Your task to perform on an android device: manage bookmarks in the chrome app Image 0: 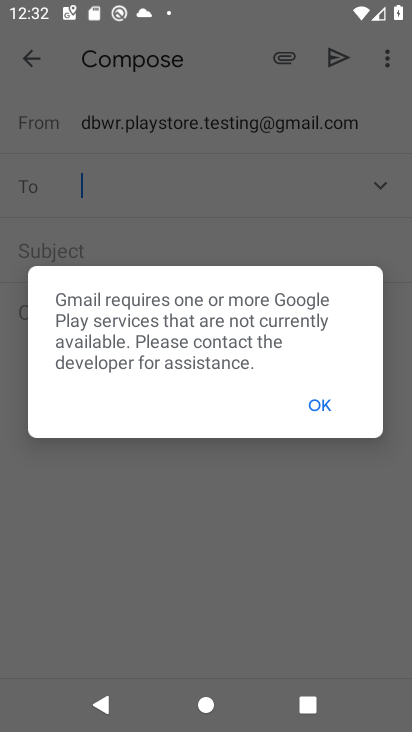
Step 0: press home button
Your task to perform on an android device: manage bookmarks in the chrome app Image 1: 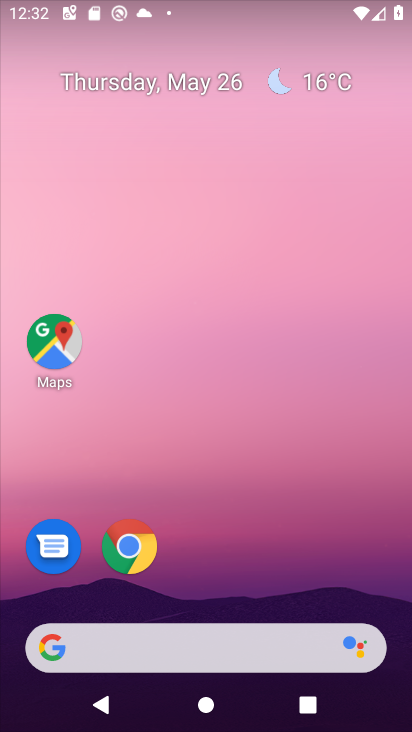
Step 1: click (129, 548)
Your task to perform on an android device: manage bookmarks in the chrome app Image 2: 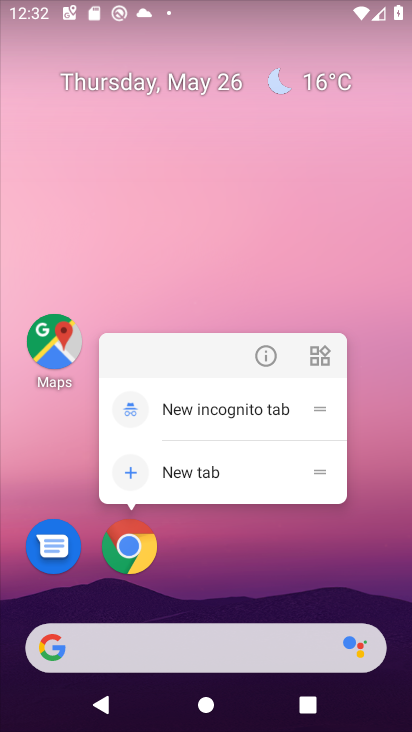
Step 2: click (129, 545)
Your task to perform on an android device: manage bookmarks in the chrome app Image 3: 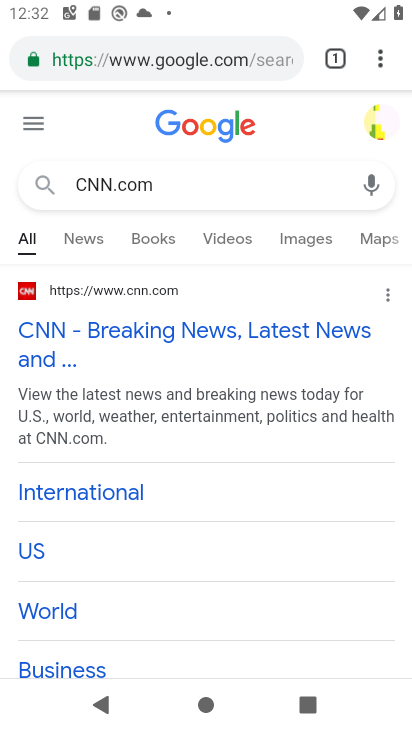
Step 3: click (380, 57)
Your task to perform on an android device: manage bookmarks in the chrome app Image 4: 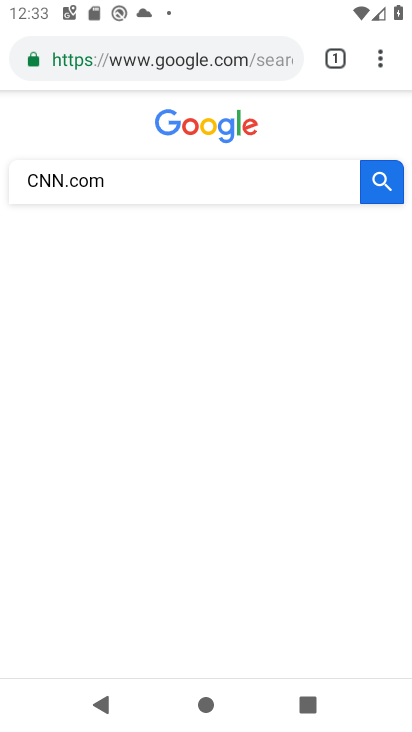
Step 4: click (380, 55)
Your task to perform on an android device: manage bookmarks in the chrome app Image 5: 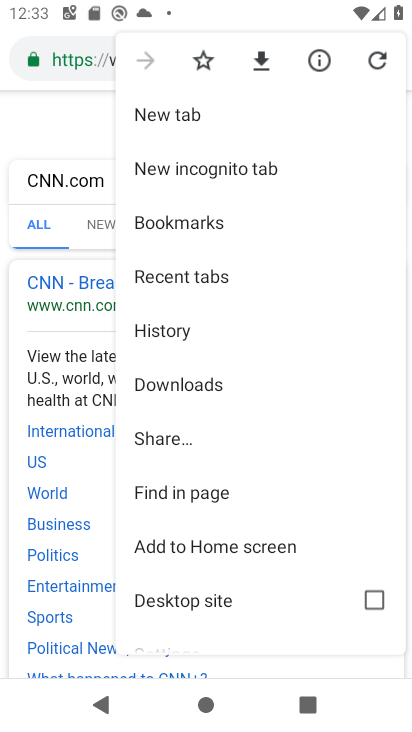
Step 5: drag from (216, 569) to (265, 213)
Your task to perform on an android device: manage bookmarks in the chrome app Image 6: 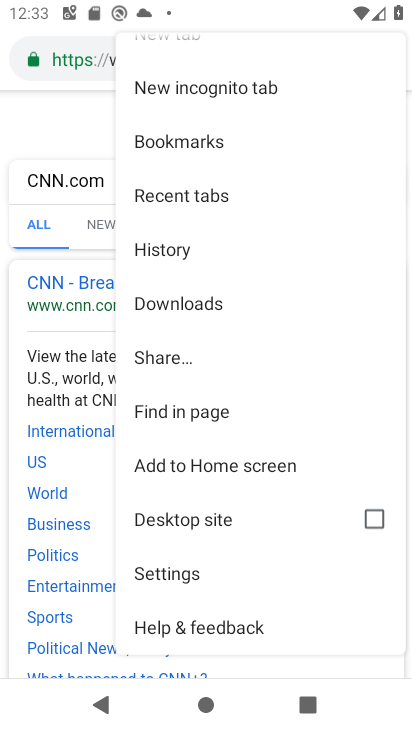
Step 6: click (196, 146)
Your task to perform on an android device: manage bookmarks in the chrome app Image 7: 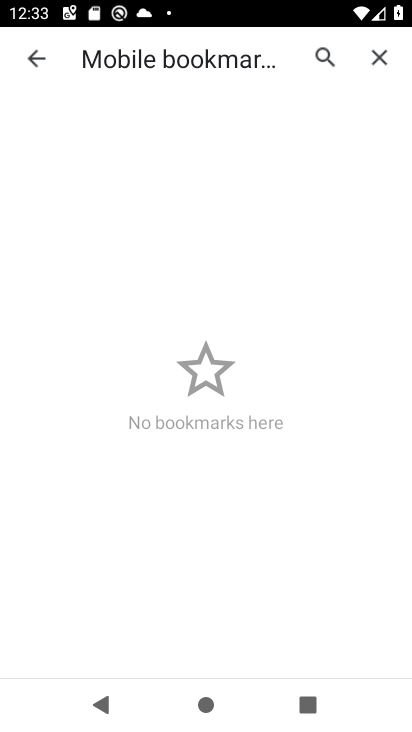
Step 7: task complete